Your task to perform on an android device: Open notification settings Image 0: 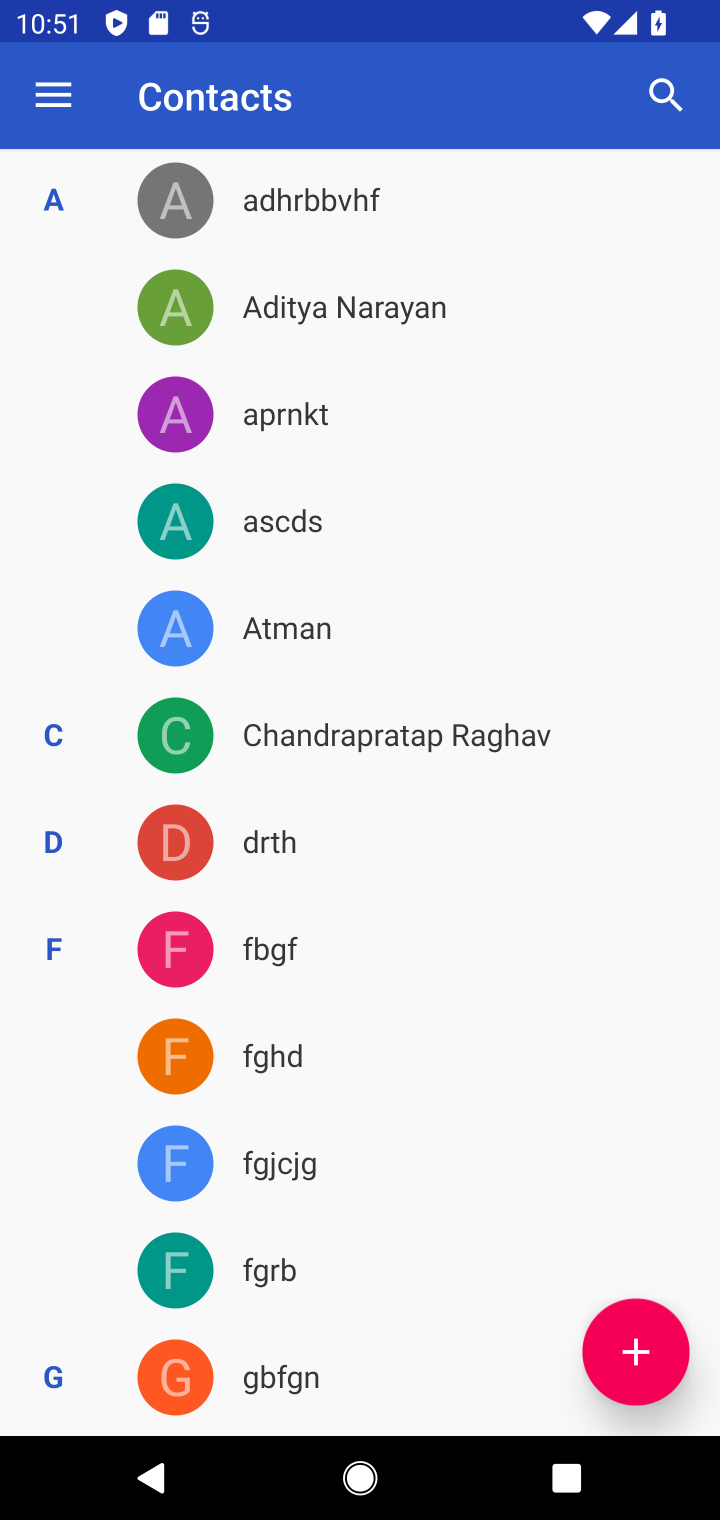
Step 0: press home button
Your task to perform on an android device: Open notification settings Image 1: 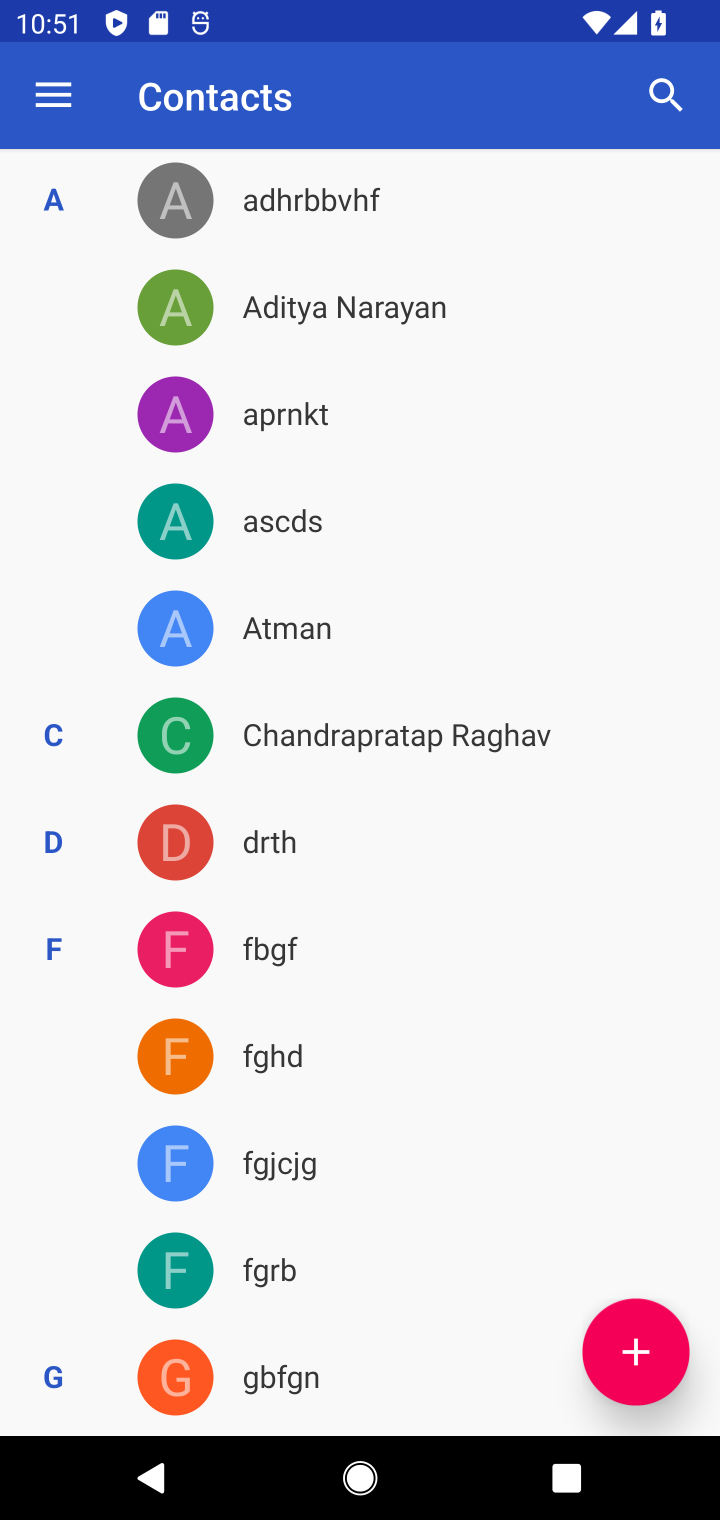
Step 1: press home button
Your task to perform on an android device: Open notification settings Image 2: 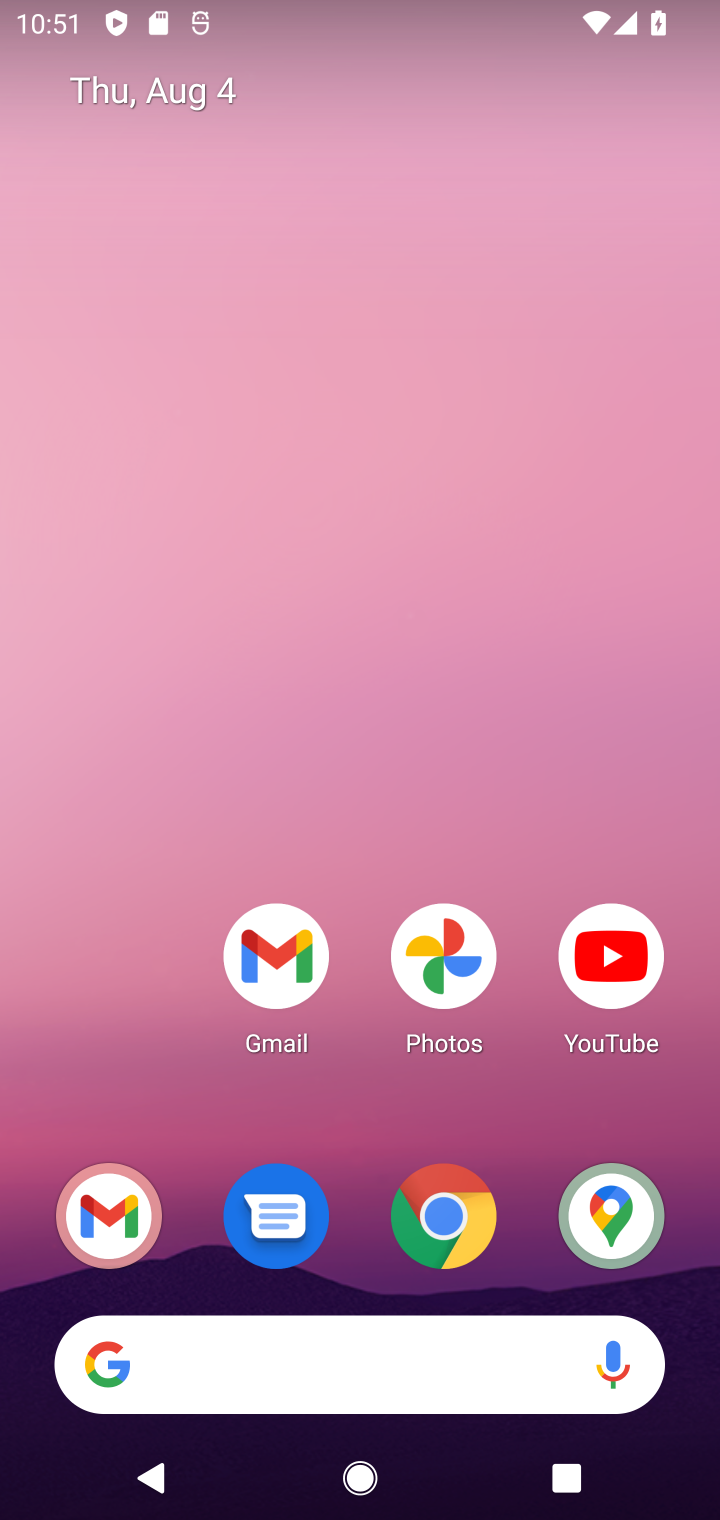
Step 2: drag from (119, 1039) to (219, 0)
Your task to perform on an android device: Open notification settings Image 3: 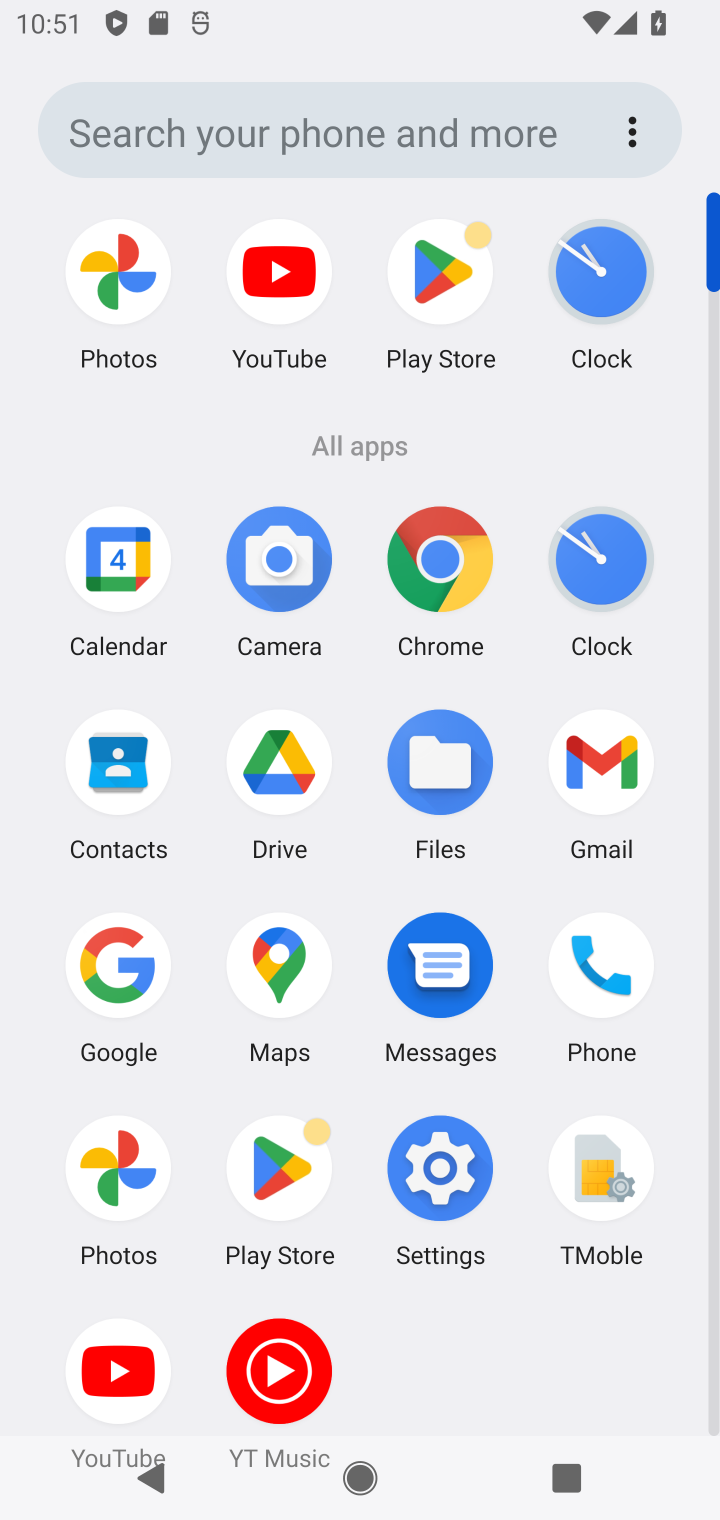
Step 3: click (431, 1169)
Your task to perform on an android device: Open notification settings Image 4: 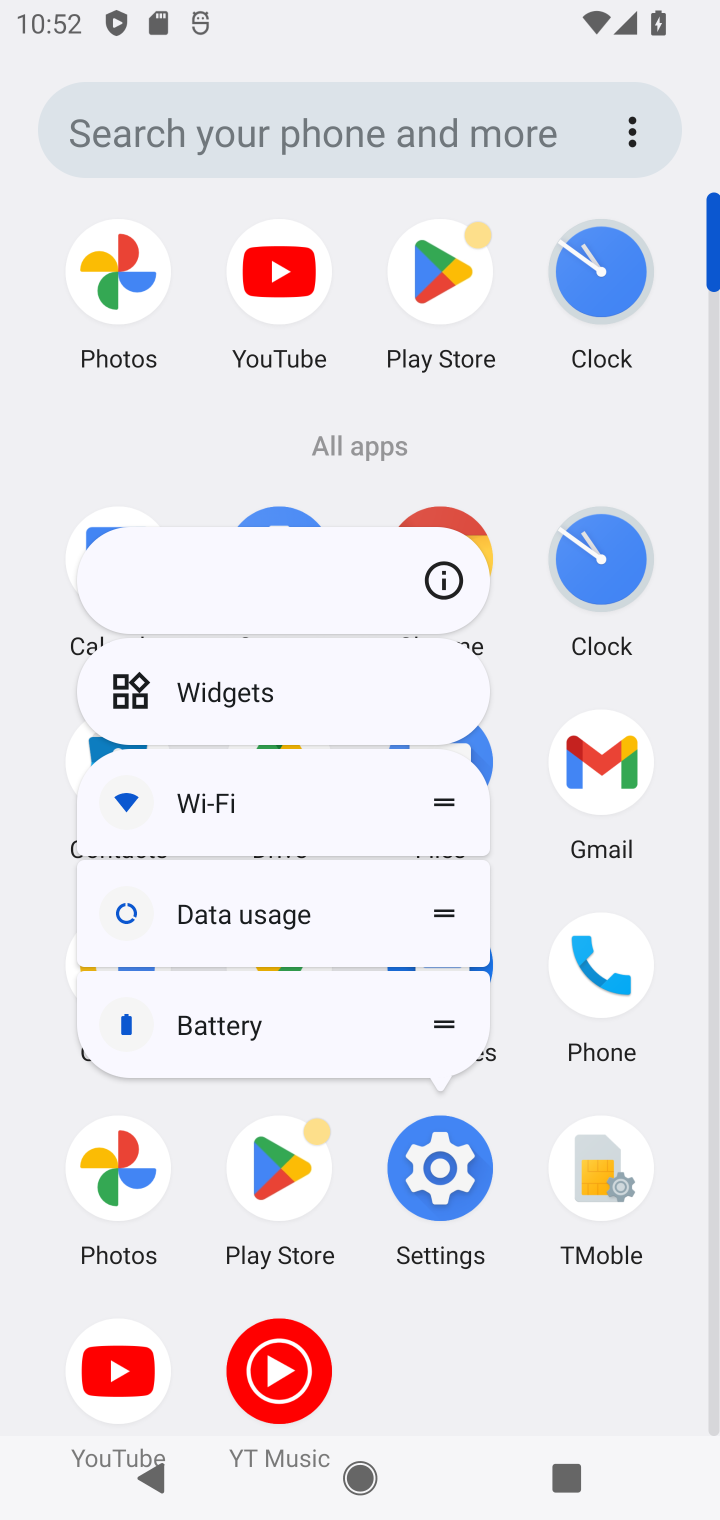
Step 4: click (431, 1169)
Your task to perform on an android device: Open notification settings Image 5: 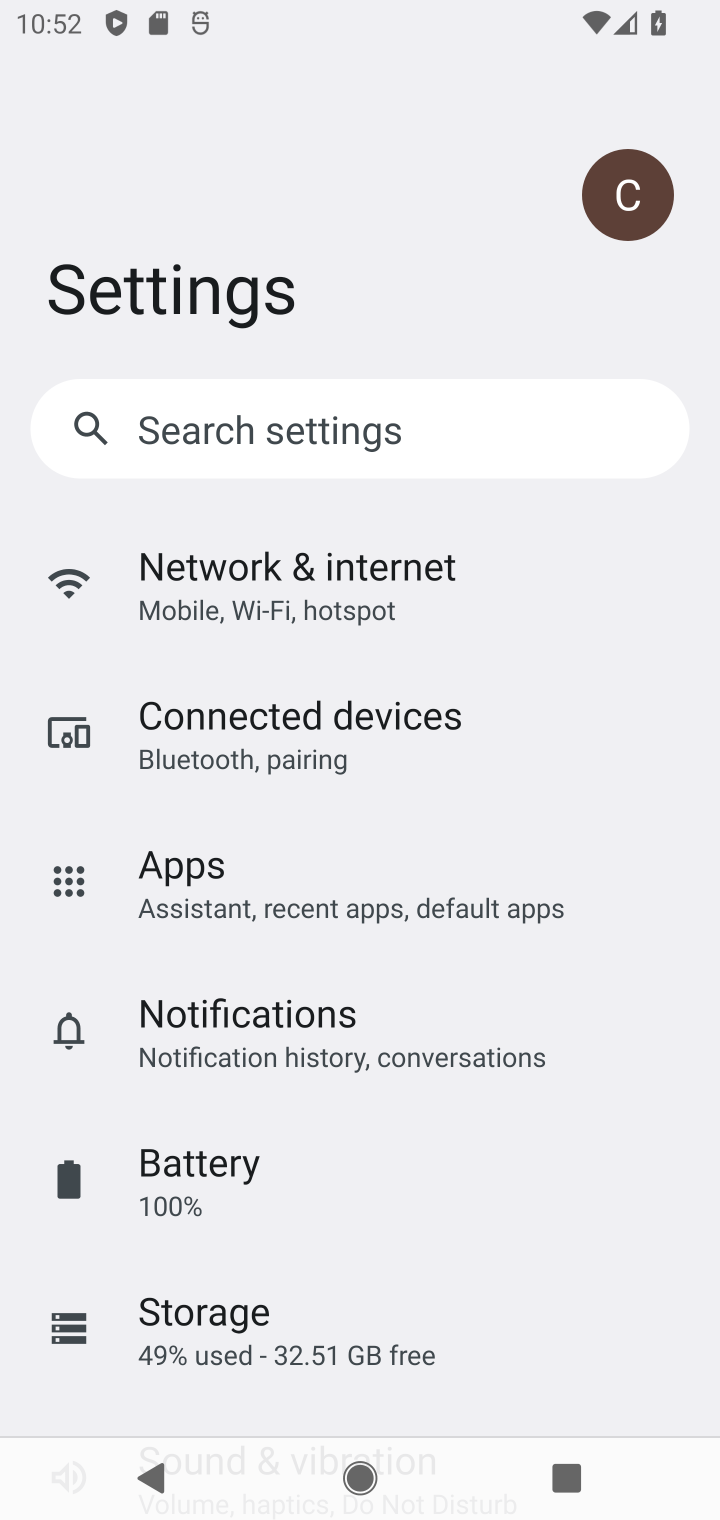
Step 5: task complete